Your task to perform on an android device: change text size in settings app Image 0: 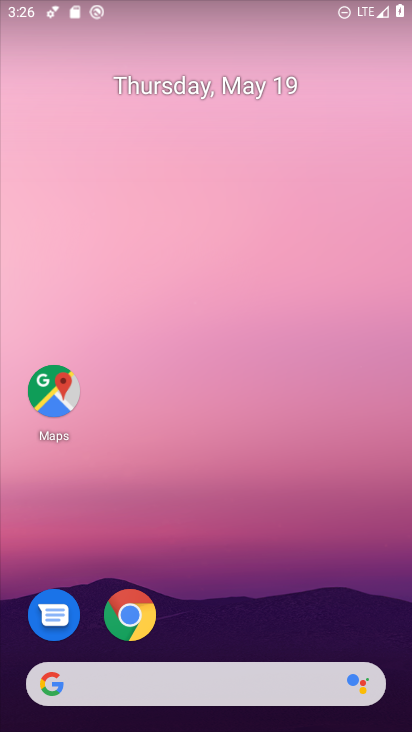
Step 0: drag from (313, 631) to (160, 150)
Your task to perform on an android device: change text size in settings app Image 1: 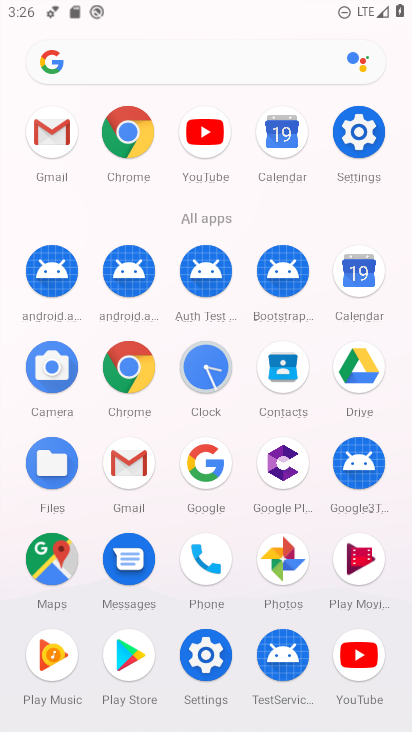
Step 1: click (368, 135)
Your task to perform on an android device: change text size in settings app Image 2: 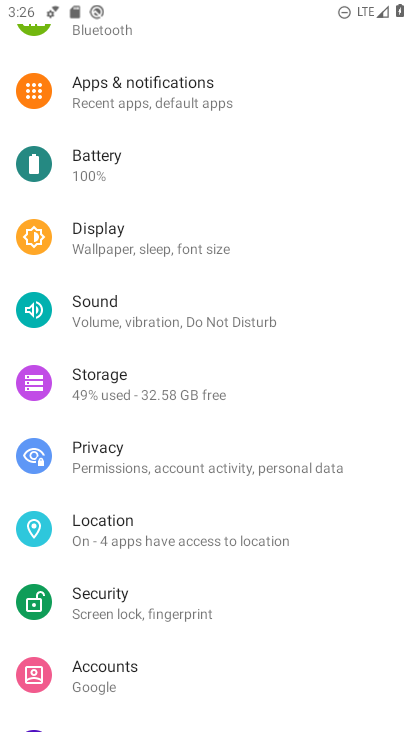
Step 2: click (218, 238)
Your task to perform on an android device: change text size in settings app Image 3: 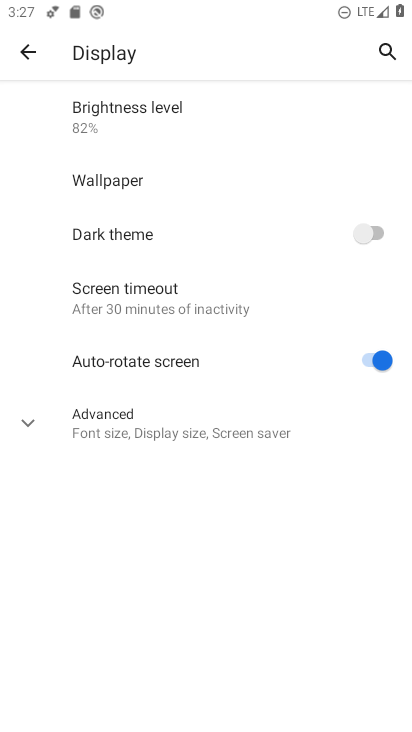
Step 3: click (221, 416)
Your task to perform on an android device: change text size in settings app Image 4: 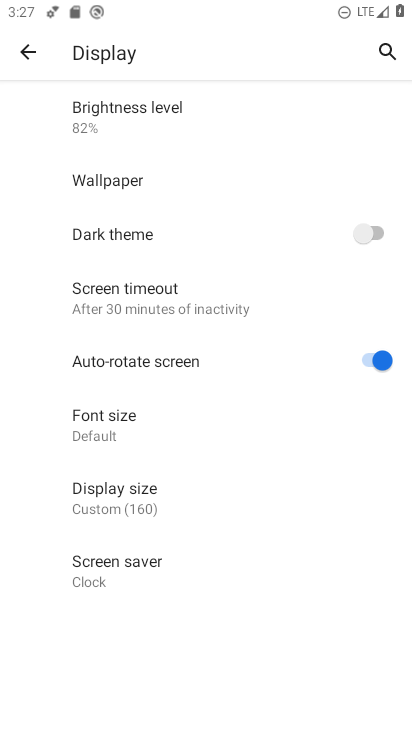
Step 4: click (205, 429)
Your task to perform on an android device: change text size in settings app Image 5: 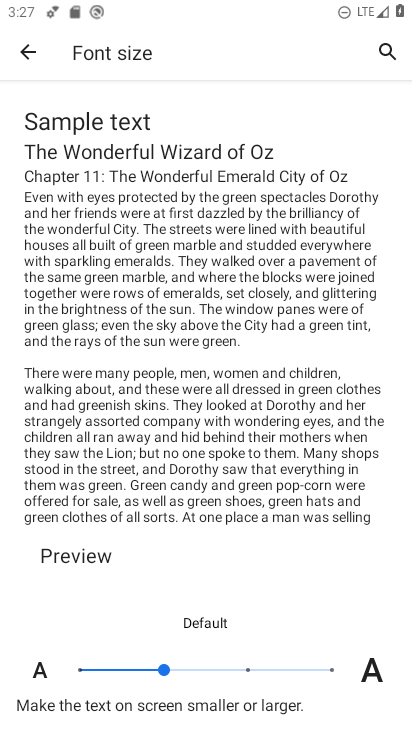
Step 5: click (257, 669)
Your task to perform on an android device: change text size in settings app Image 6: 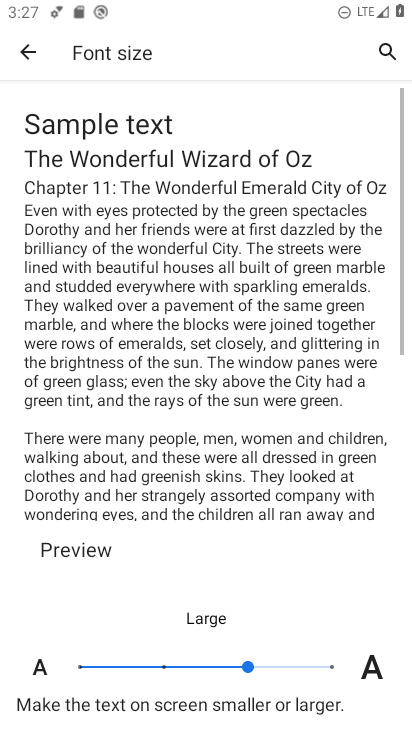
Step 6: task complete